Your task to perform on an android device: toggle airplane mode Image 0: 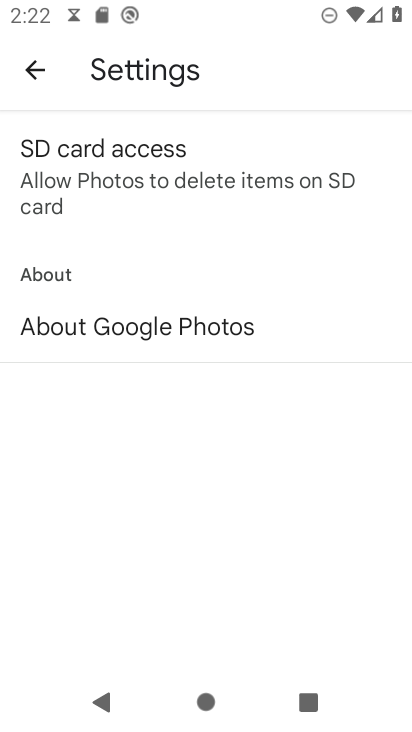
Step 0: press home button
Your task to perform on an android device: toggle airplane mode Image 1: 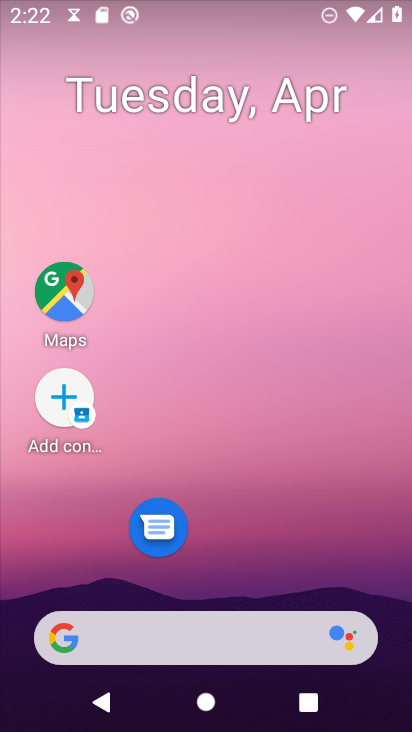
Step 1: drag from (267, 585) to (295, 74)
Your task to perform on an android device: toggle airplane mode Image 2: 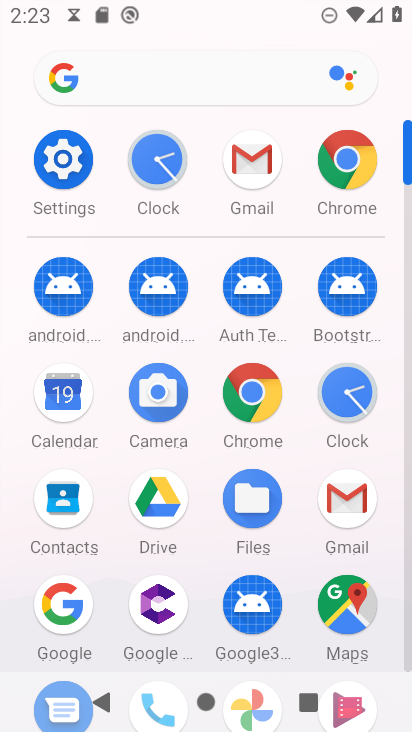
Step 2: click (65, 160)
Your task to perform on an android device: toggle airplane mode Image 3: 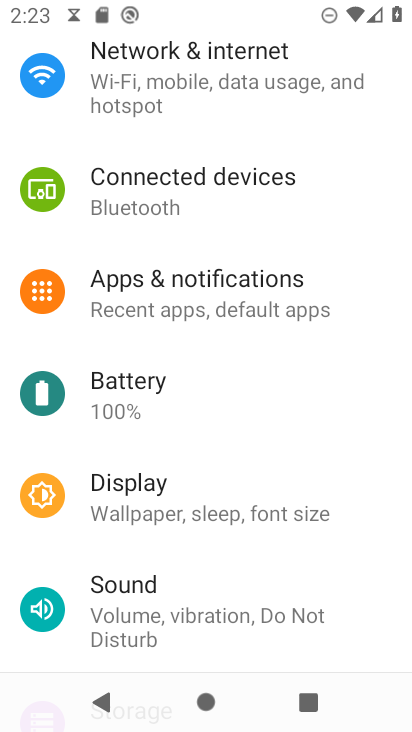
Step 3: drag from (232, 158) to (263, 303)
Your task to perform on an android device: toggle airplane mode Image 4: 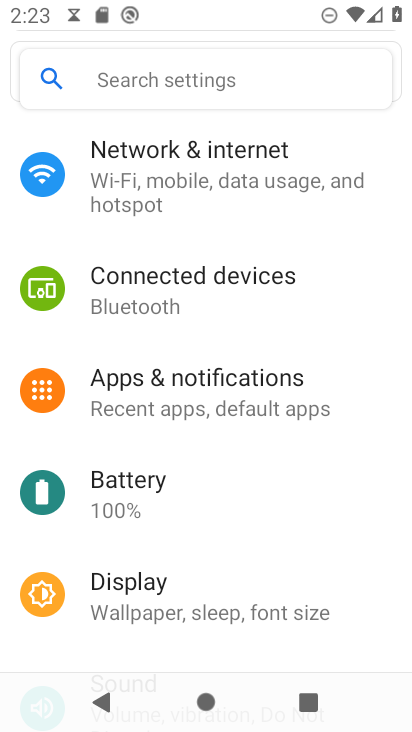
Step 4: click (244, 155)
Your task to perform on an android device: toggle airplane mode Image 5: 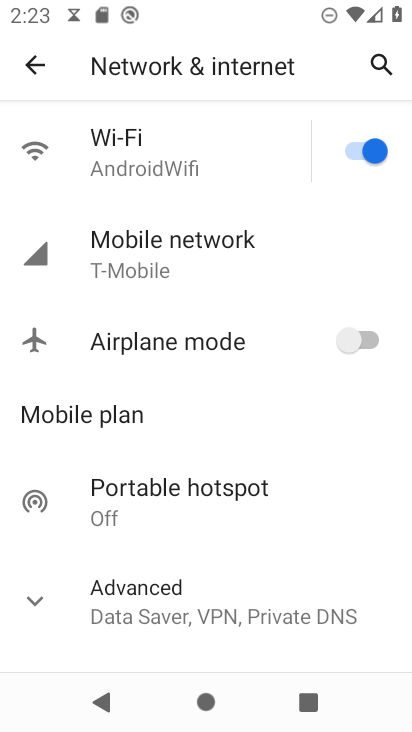
Step 5: click (353, 341)
Your task to perform on an android device: toggle airplane mode Image 6: 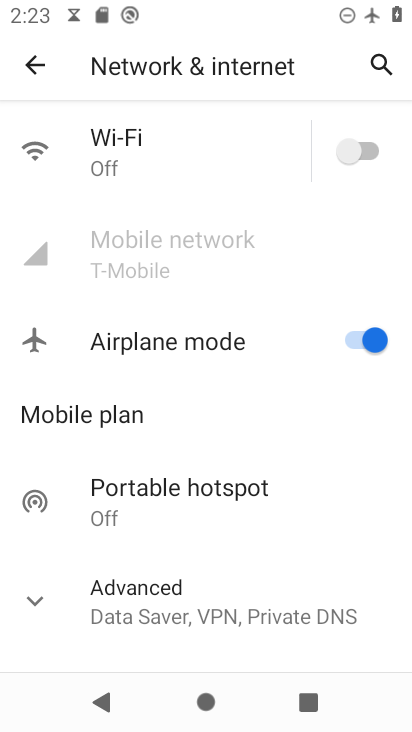
Step 6: task complete